Your task to perform on an android device: Search for vegetarian restaurants on Maps Image 0: 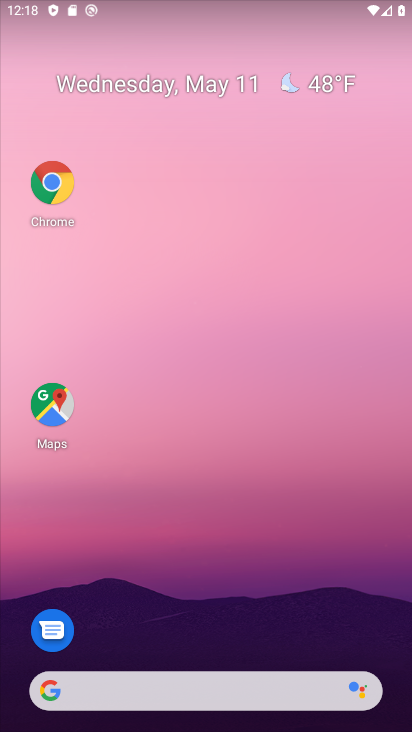
Step 0: click (35, 408)
Your task to perform on an android device: Search for vegetarian restaurants on Maps Image 1: 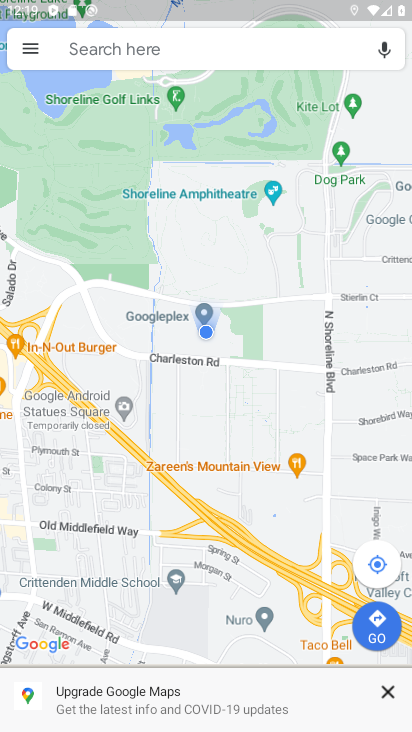
Step 1: click (181, 62)
Your task to perform on an android device: Search for vegetarian restaurants on Maps Image 2: 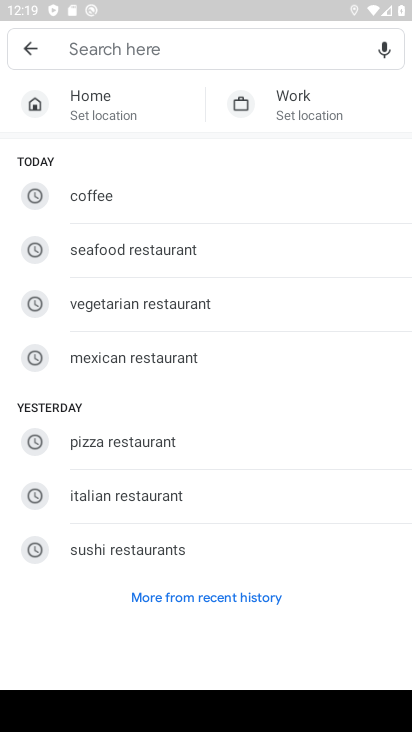
Step 2: click (130, 310)
Your task to perform on an android device: Search for vegetarian restaurants on Maps Image 3: 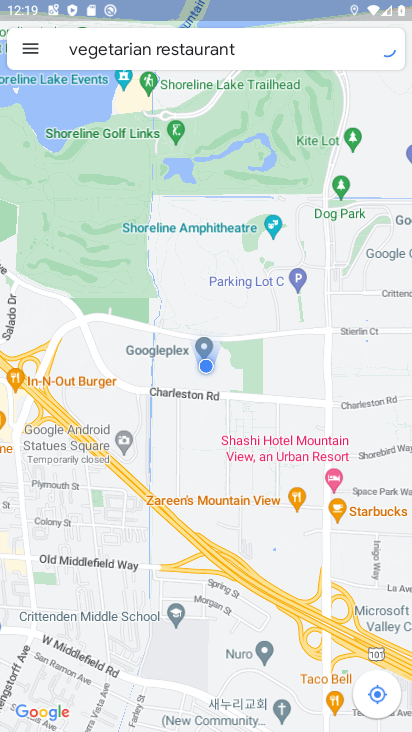
Step 3: task complete